Your task to perform on an android device: turn on wifi Image 0: 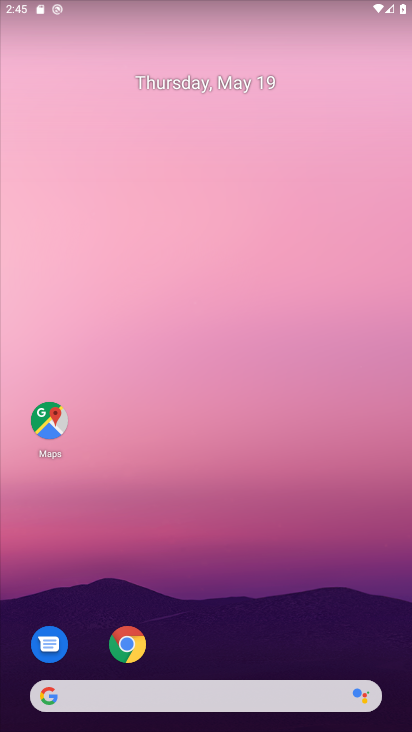
Step 0: drag from (256, 600) to (235, 211)
Your task to perform on an android device: turn on wifi Image 1: 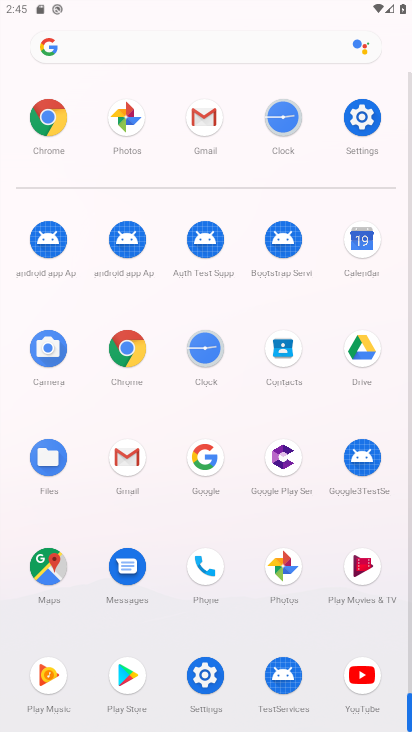
Step 1: click (364, 115)
Your task to perform on an android device: turn on wifi Image 2: 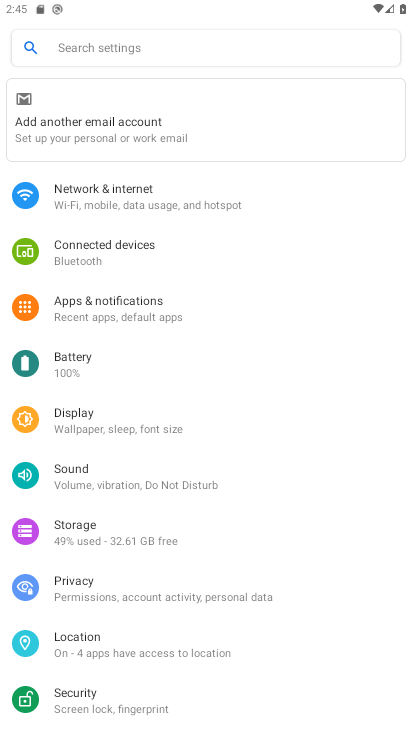
Step 2: click (148, 201)
Your task to perform on an android device: turn on wifi Image 3: 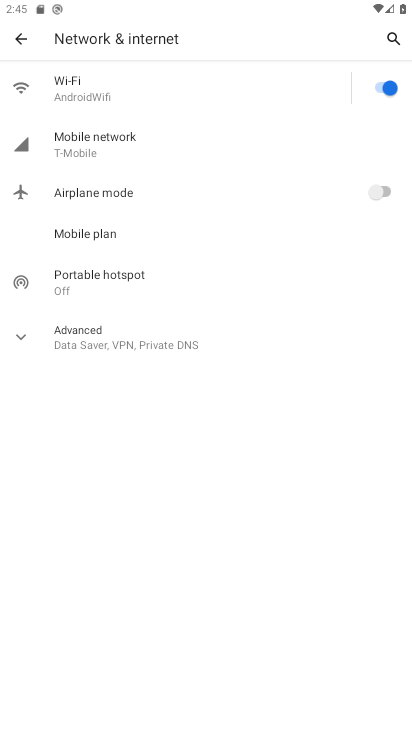
Step 3: click (228, 79)
Your task to perform on an android device: turn on wifi Image 4: 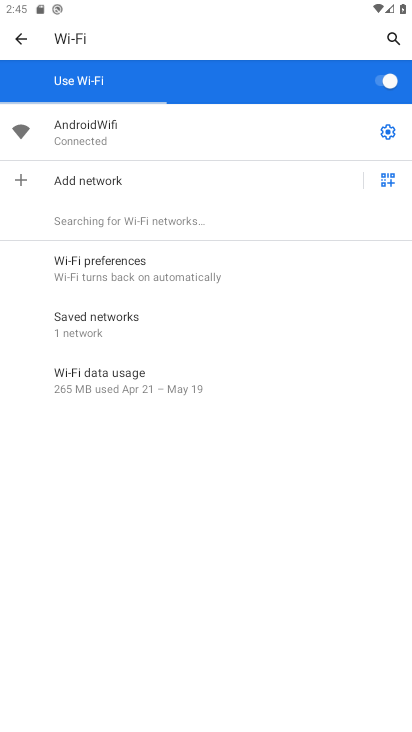
Step 4: task complete